Your task to perform on an android device: Open the Play Movies app and select the watchlist tab. Image 0: 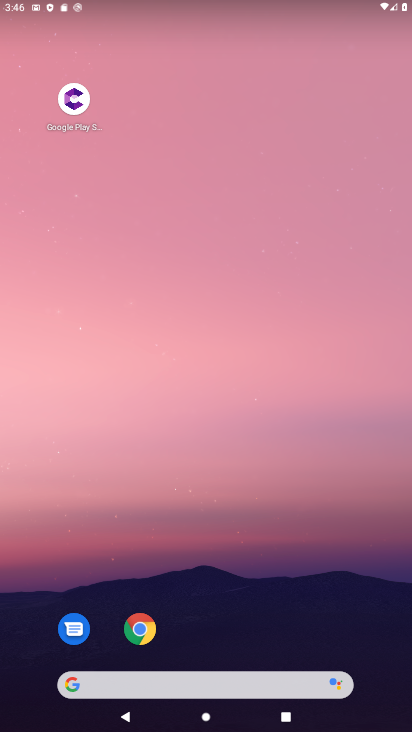
Step 0: drag from (295, 579) to (197, 62)
Your task to perform on an android device: Open the Play Movies app and select the watchlist tab. Image 1: 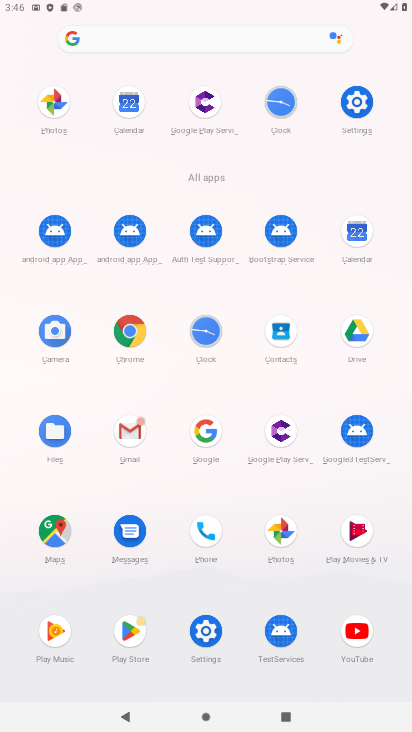
Step 1: click (356, 529)
Your task to perform on an android device: Open the Play Movies app and select the watchlist tab. Image 2: 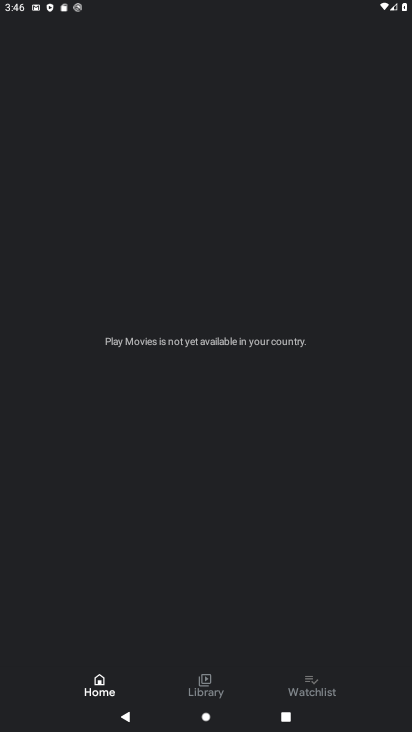
Step 2: click (312, 682)
Your task to perform on an android device: Open the Play Movies app and select the watchlist tab. Image 3: 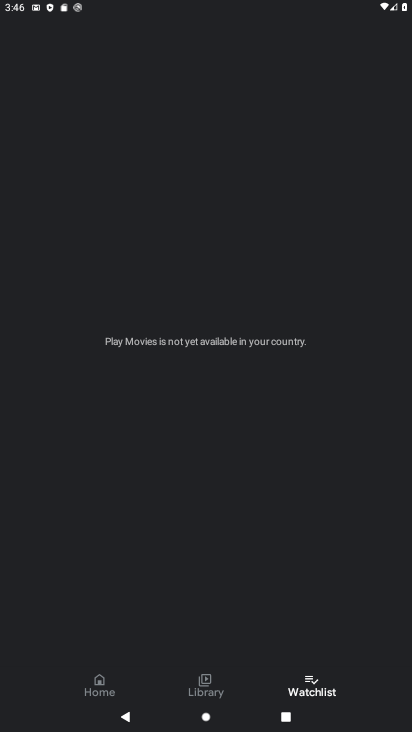
Step 3: task complete